Your task to perform on an android device: check the backup settings in the google photos Image 0: 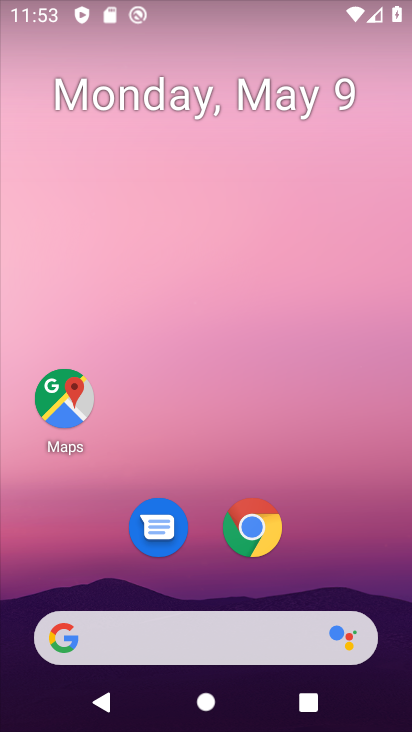
Step 0: drag from (172, 616) to (294, 71)
Your task to perform on an android device: check the backup settings in the google photos Image 1: 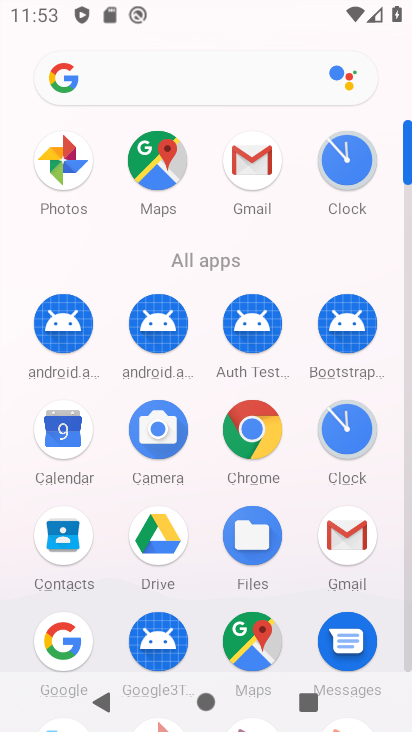
Step 1: drag from (190, 641) to (257, 310)
Your task to perform on an android device: check the backup settings in the google photos Image 2: 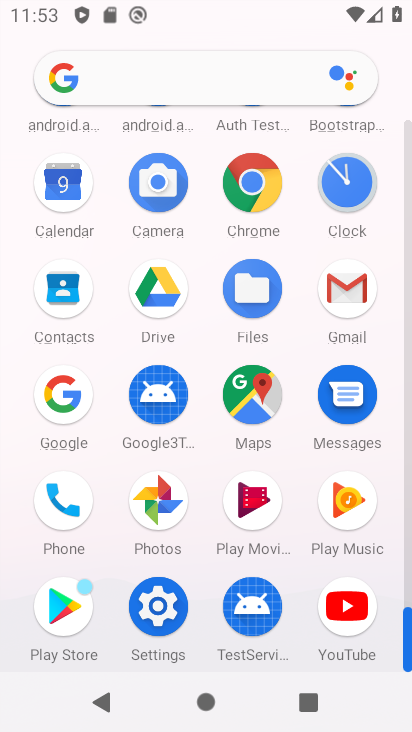
Step 2: click (166, 512)
Your task to perform on an android device: check the backup settings in the google photos Image 3: 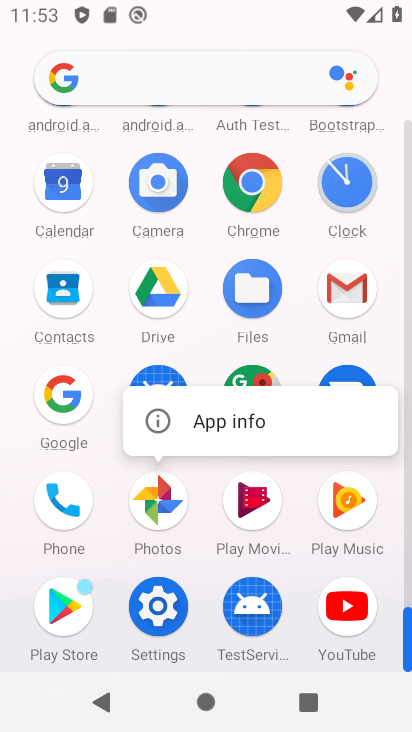
Step 3: click (150, 521)
Your task to perform on an android device: check the backup settings in the google photos Image 4: 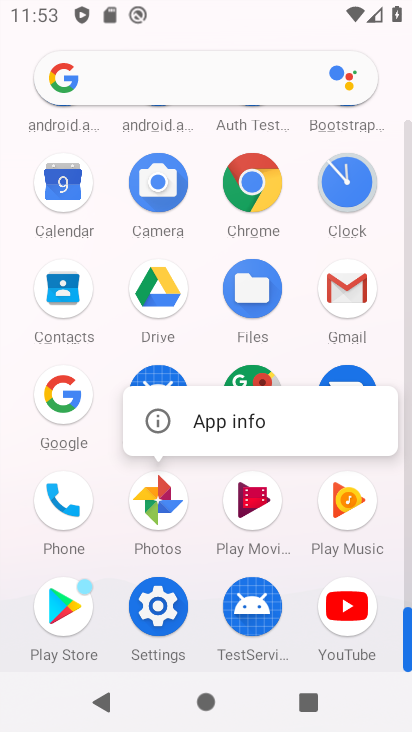
Step 4: click (167, 526)
Your task to perform on an android device: check the backup settings in the google photos Image 5: 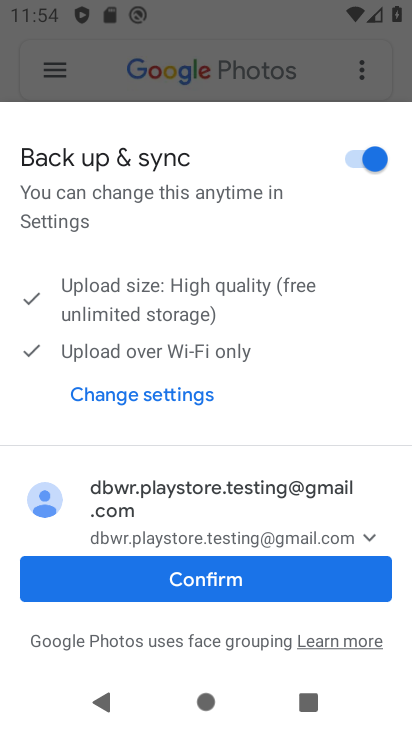
Step 5: click (221, 591)
Your task to perform on an android device: check the backup settings in the google photos Image 6: 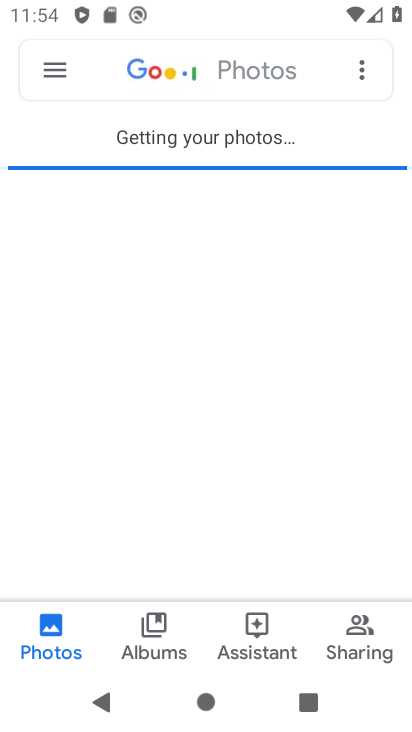
Step 6: click (63, 67)
Your task to perform on an android device: check the backup settings in the google photos Image 7: 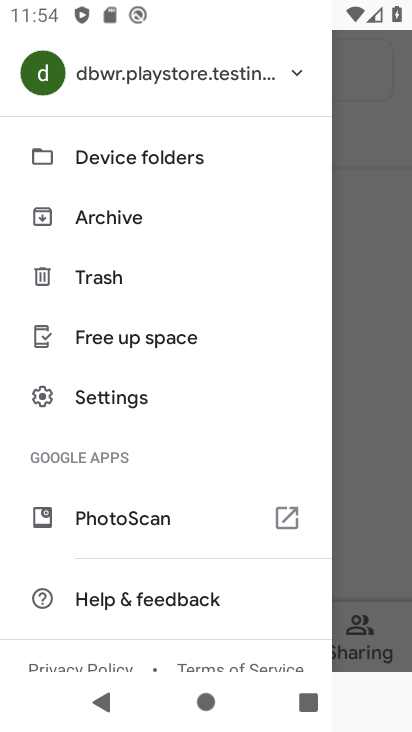
Step 7: click (152, 405)
Your task to perform on an android device: check the backup settings in the google photos Image 8: 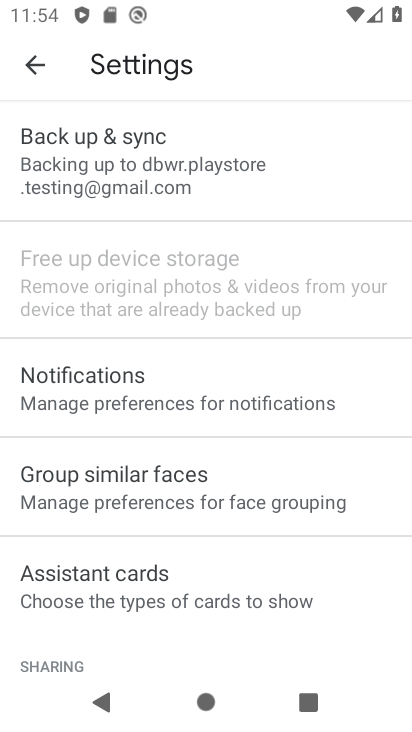
Step 8: click (194, 174)
Your task to perform on an android device: check the backup settings in the google photos Image 9: 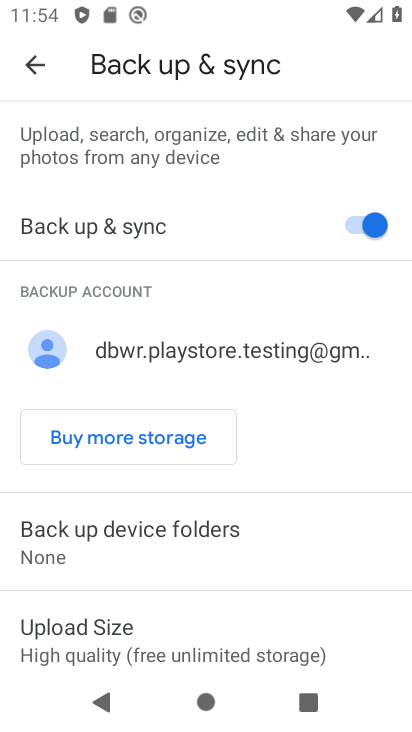
Step 9: task complete